Your task to perform on an android device: turn off notifications in google photos Image 0: 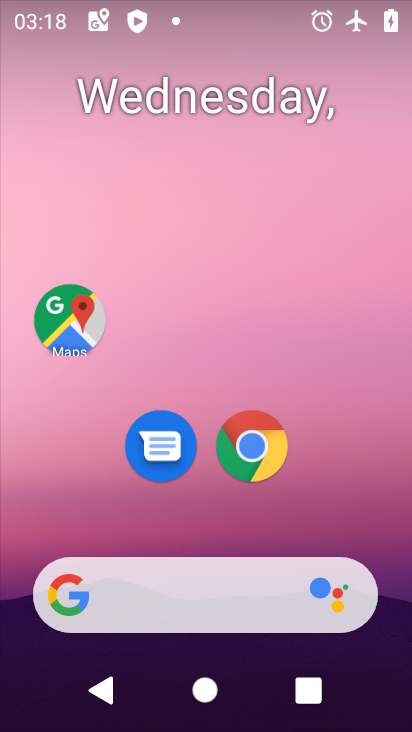
Step 0: drag from (203, 529) to (191, 146)
Your task to perform on an android device: turn off notifications in google photos Image 1: 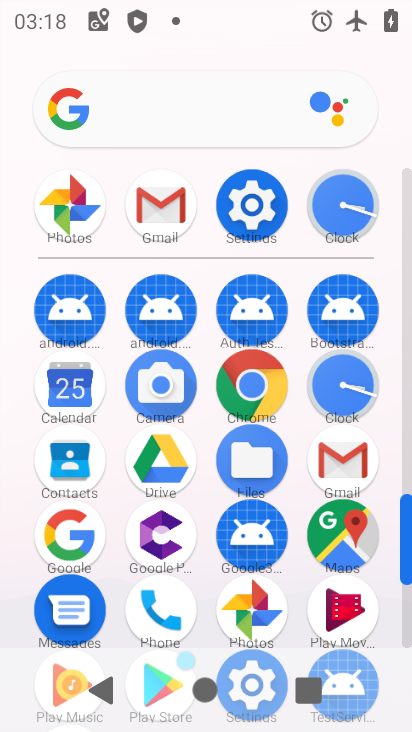
Step 1: click (70, 197)
Your task to perform on an android device: turn off notifications in google photos Image 2: 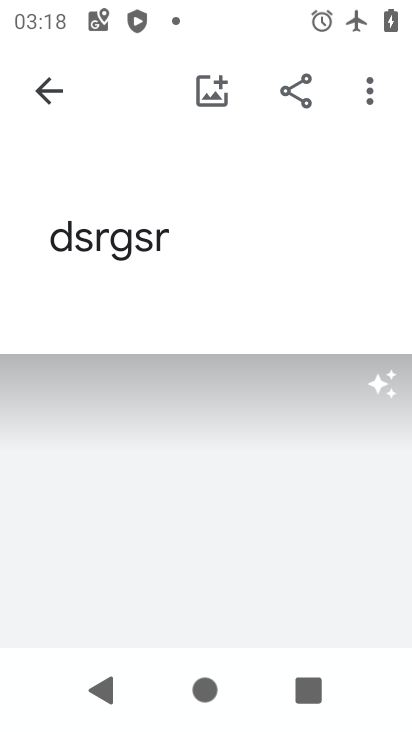
Step 2: click (44, 98)
Your task to perform on an android device: turn off notifications in google photos Image 3: 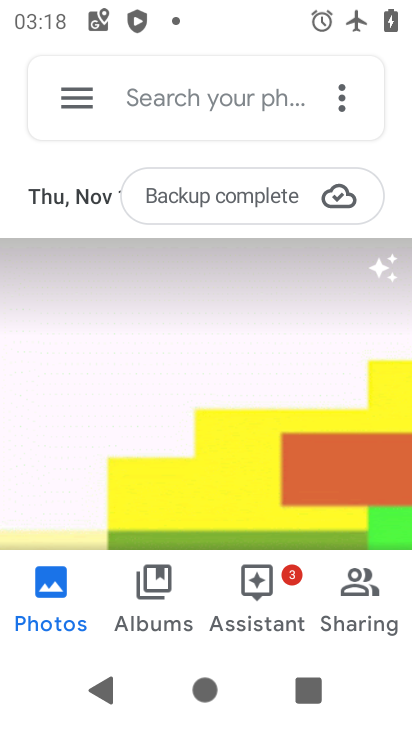
Step 3: click (53, 96)
Your task to perform on an android device: turn off notifications in google photos Image 4: 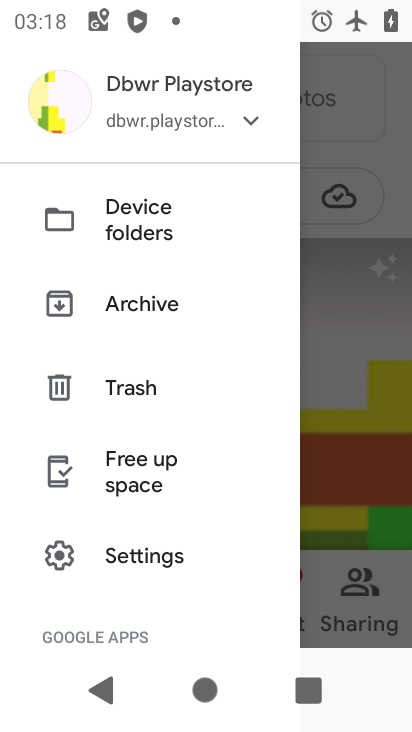
Step 4: drag from (169, 572) to (141, 249)
Your task to perform on an android device: turn off notifications in google photos Image 5: 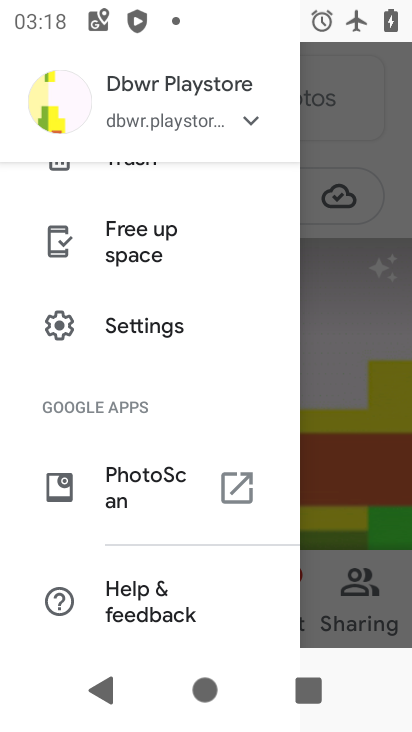
Step 5: click (161, 329)
Your task to perform on an android device: turn off notifications in google photos Image 6: 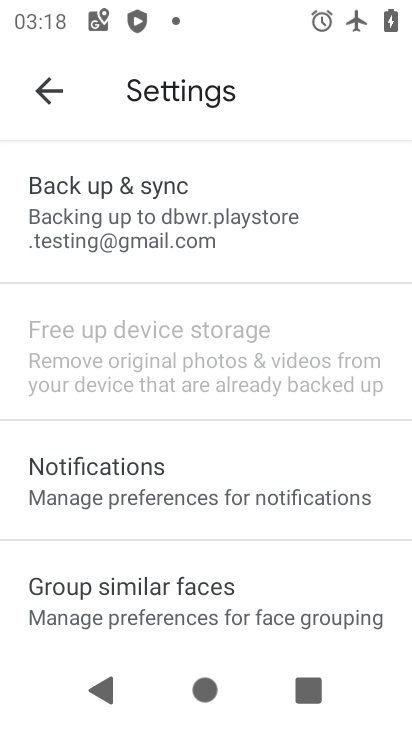
Step 6: click (178, 478)
Your task to perform on an android device: turn off notifications in google photos Image 7: 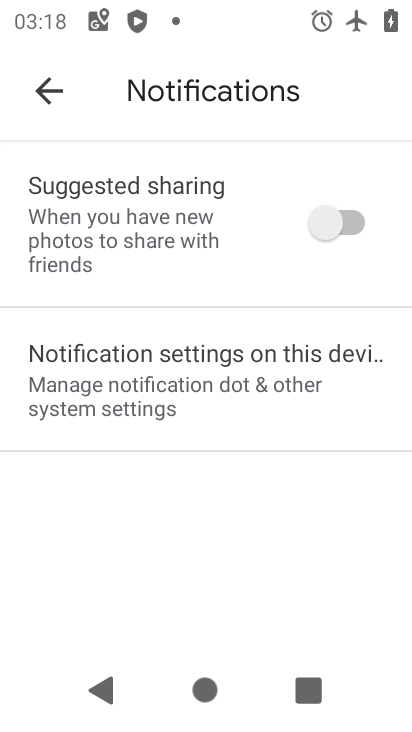
Step 7: click (151, 395)
Your task to perform on an android device: turn off notifications in google photos Image 8: 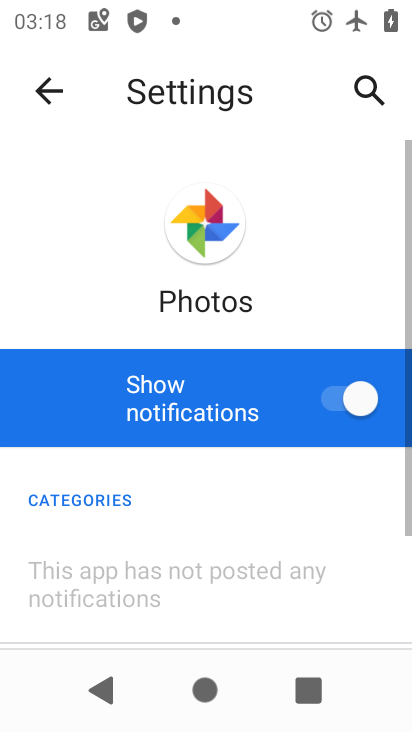
Step 8: click (330, 393)
Your task to perform on an android device: turn off notifications in google photos Image 9: 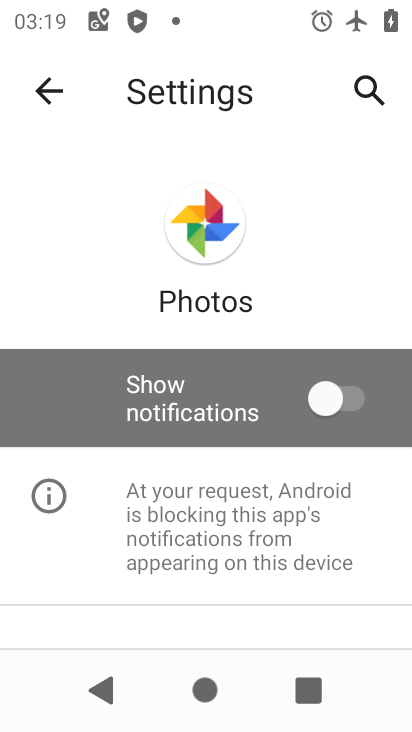
Step 9: task complete